Your task to perform on an android device: empty trash in the gmail app Image 0: 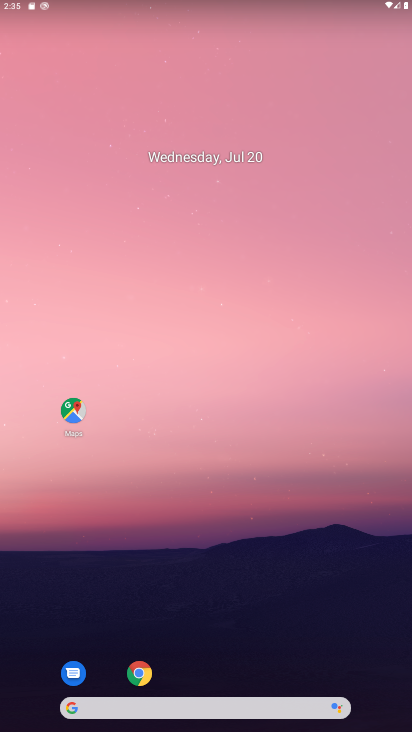
Step 0: drag from (199, 693) to (270, 23)
Your task to perform on an android device: empty trash in the gmail app Image 1: 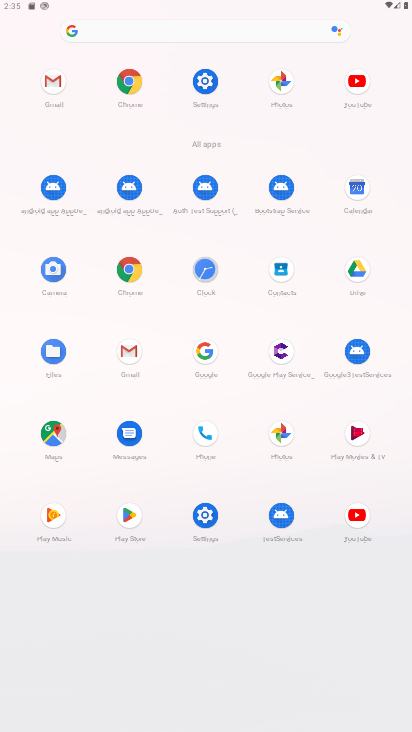
Step 1: click (130, 366)
Your task to perform on an android device: empty trash in the gmail app Image 2: 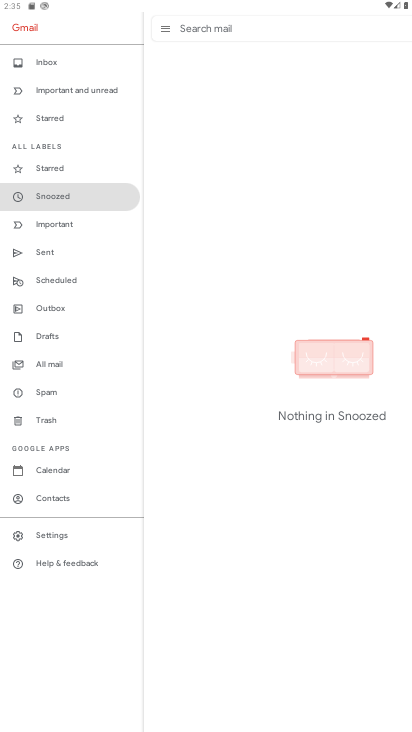
Step 2: click (48, 418)
Your task to perform on an android device: empty trash in the gmail app Image 3: 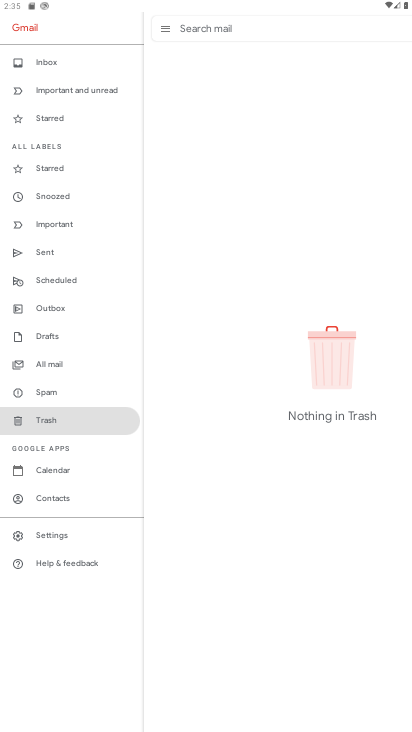
Step 3: task complete